Your task to perform on an android device: What's on my calendar tomorrow? Image 0: 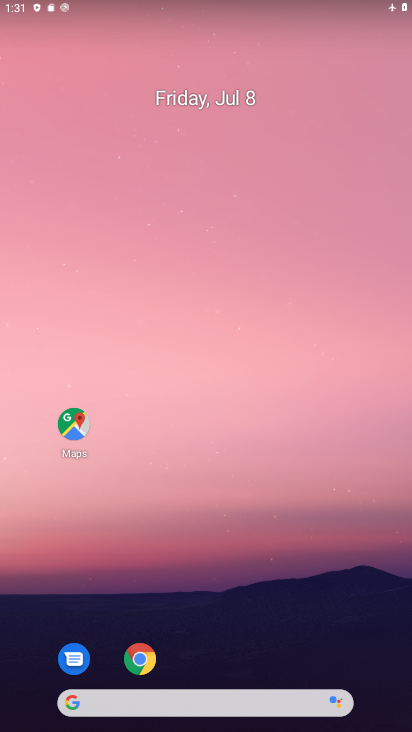
Step 0: drag from (243, 604) to (266, 93)
Your task to perform on an android device: What's on my calendar tomorrow? Image 1: 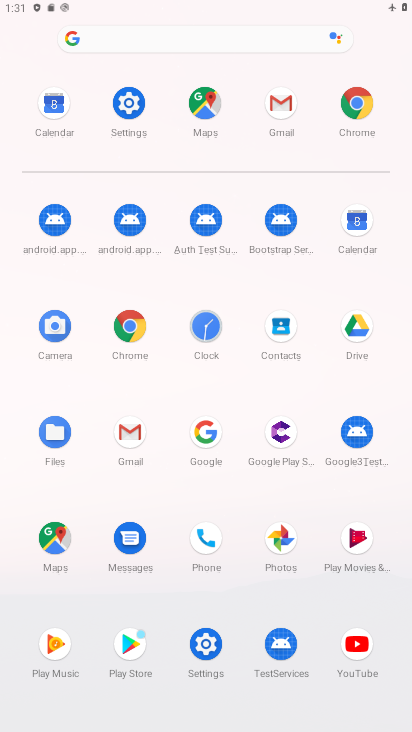
Step 1: click (367, 223)
Your task to perform on an android device: What's on my calendar tomorrow? Image 2: 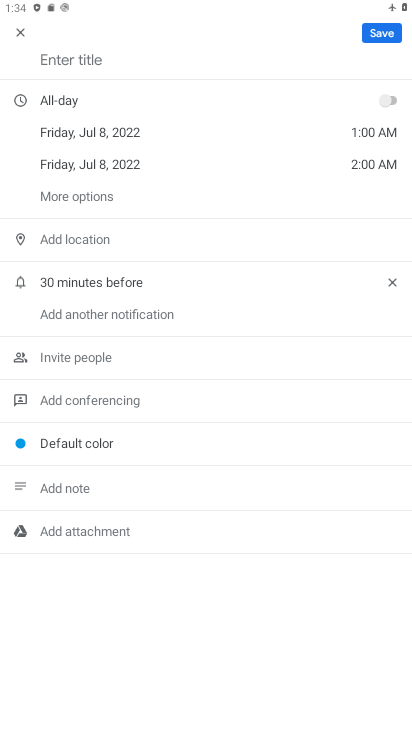
Step 2: click (20, 32)
Your task to perform on an android device: What's on my calendar tomorrow? Image 3: 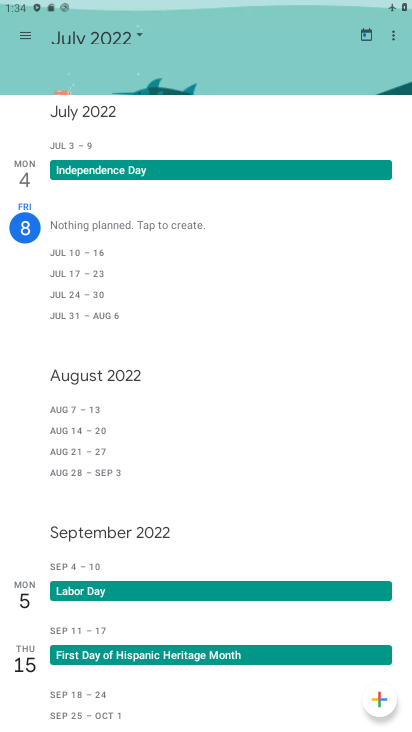
Step 3: click (21, 42)
Your task to perform on an android device: What's on my calendar tomorrow? Image 4: 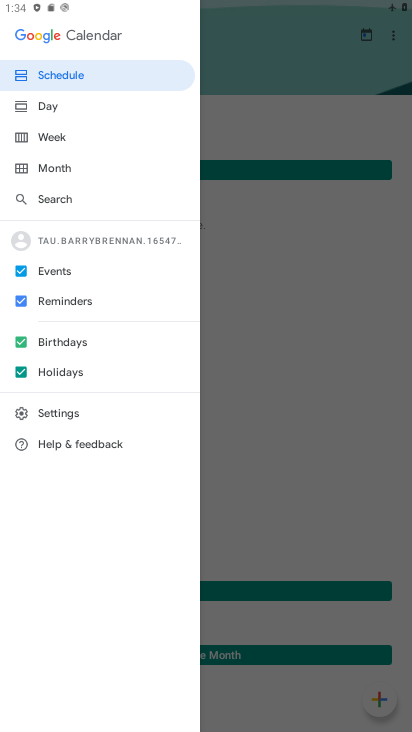
Step 4: click (70, 114)
Your task to perform on an android device: What's on my calendar tomorrow? Image 5: 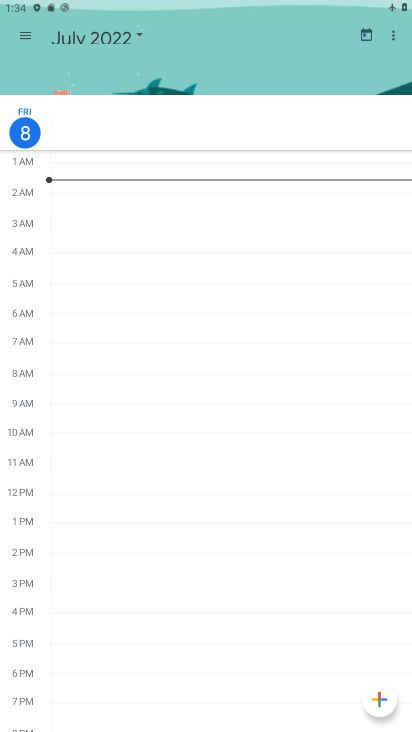
Step 5: drag from (156, 422) to (214, 47)
Your task to perform on an android device: What's on my calendar tomorrow? Image 6: 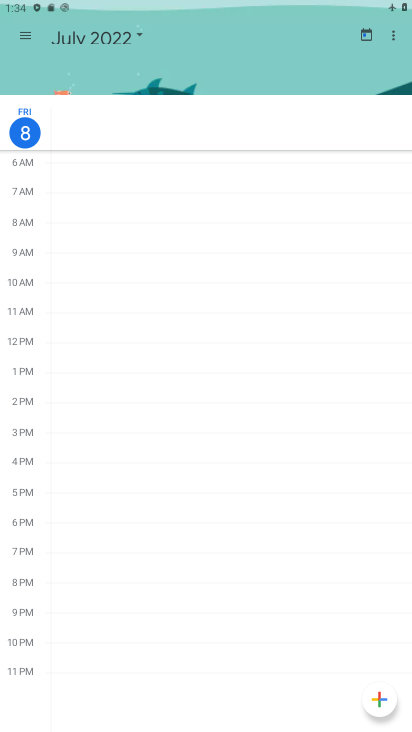
Step 6: click (123, 38)
Your task to perform on an android device: What's on my calendar tomorrow? Image 7: 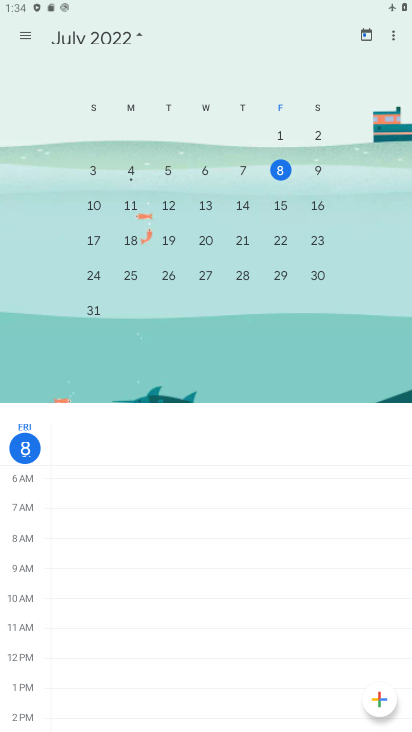
Step 7: click (316, 172)
Your task to perform on an android device: What's on my calendar tomorrow? Image 8: 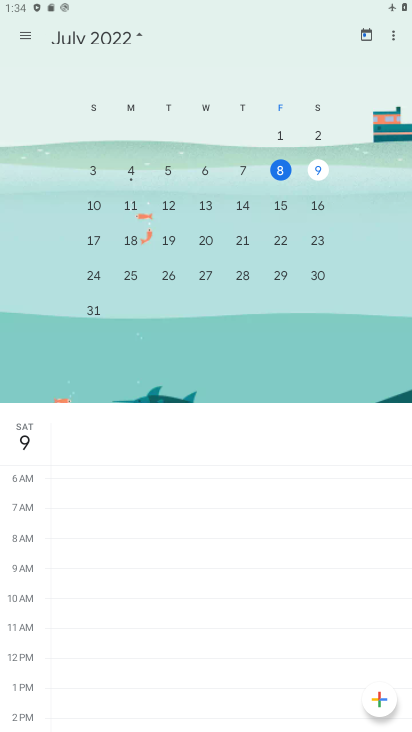
Step 8: click (105, 38)
Your task to perform on an android device: What's on my calendar tomorrow? Image 9: 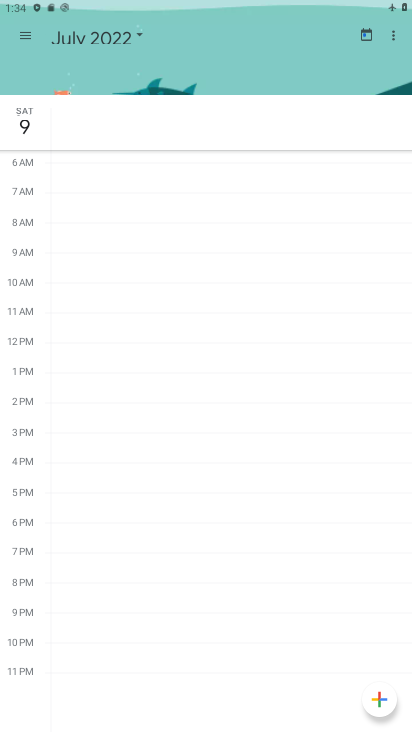
Step 9: task complete